Your task to perform on an android device: Open location settings Image 0: 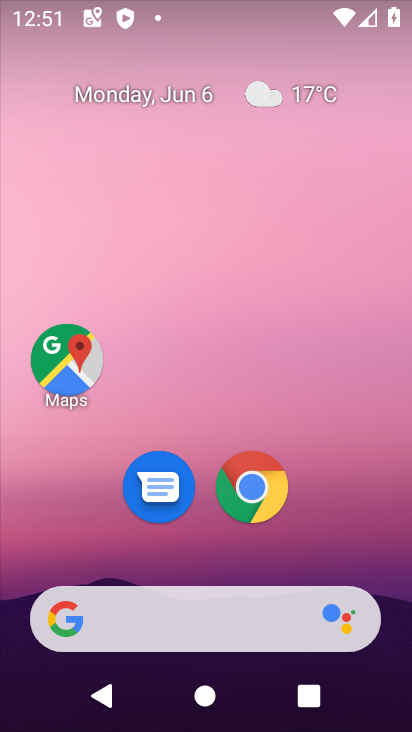
Step 0: drag from (160, 553) to (222, 7)
Your task to perform on an android device: Open location settings Image 1: 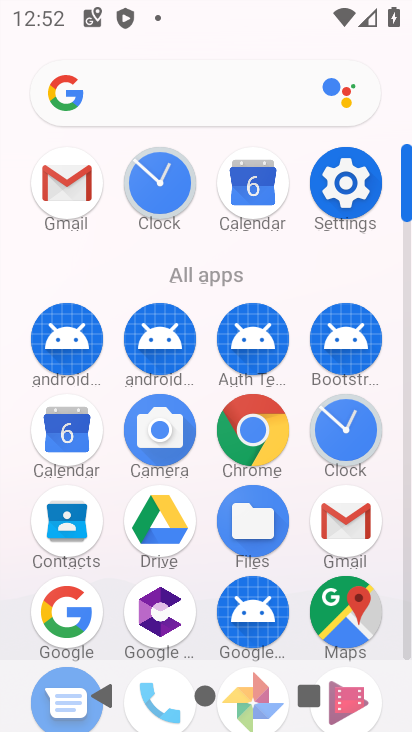
Step 1: click (362, 172)
Your task to perform on an android device: Open location settings Image 2: 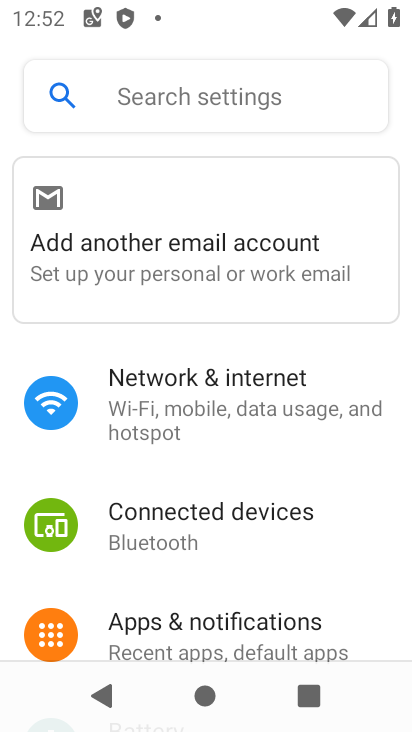
Step 2: drag from (192, 552) to (244, 99)
Your task to perform on an android device: Open location settings Image 3: 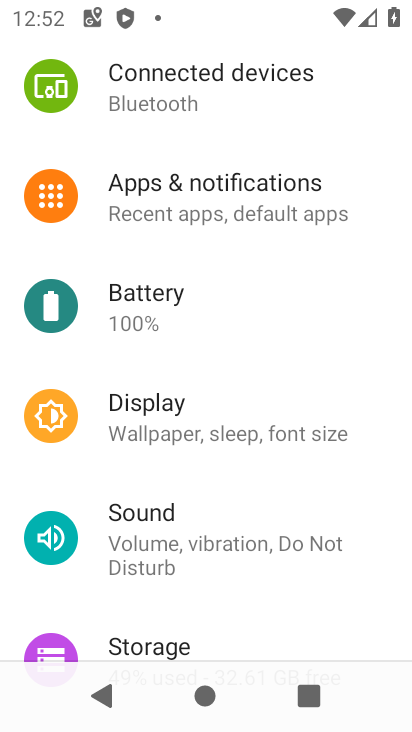
Step 3: drag from (194, 655) to (293, 78)
Your task to perform on an android device: Open location settings Image 4: 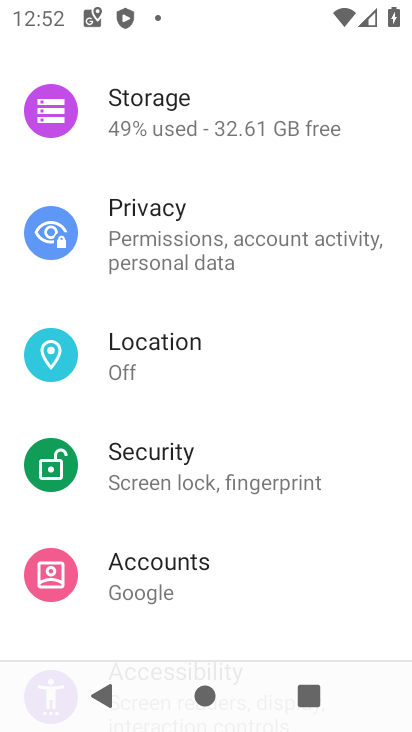
Step 4: click (166, 347)
Your task to perform on an android device: Open location settings Image 5: 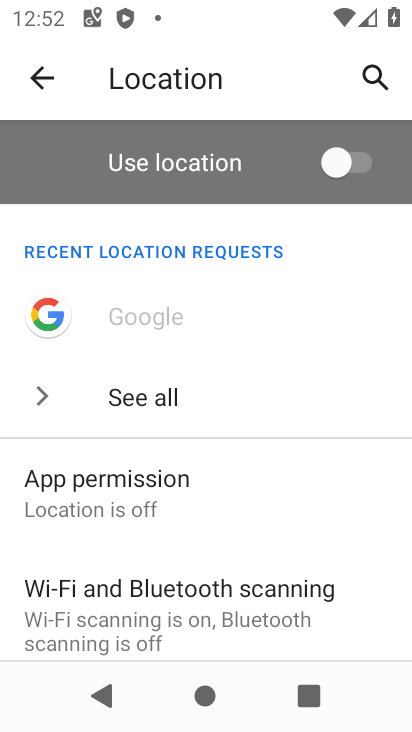
Step 5: task complete